Your task to perform on an android device: add a label to a message in the gmail app Image 0: 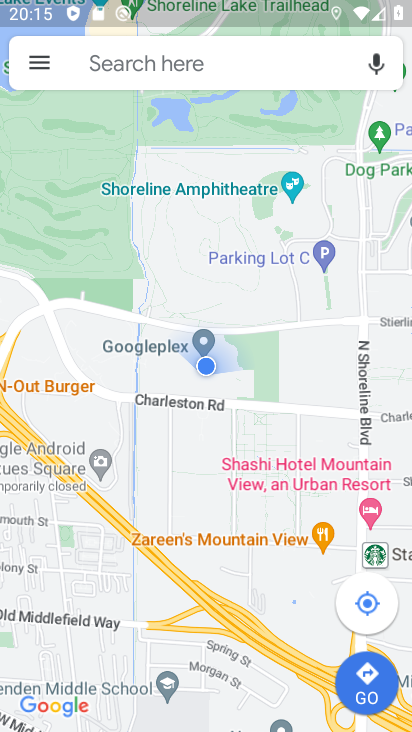
Step 0: press home button
Your task to perform on an android device: add a label to a message in the gmail app Image 1: 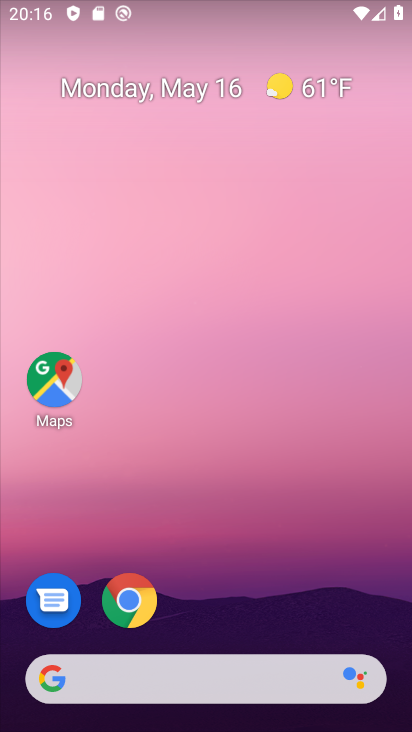
Step 1: drag from (187, 651) to (298, 104)
Your task to perform on an android device: add a label to a message in the gmail app Image 2: 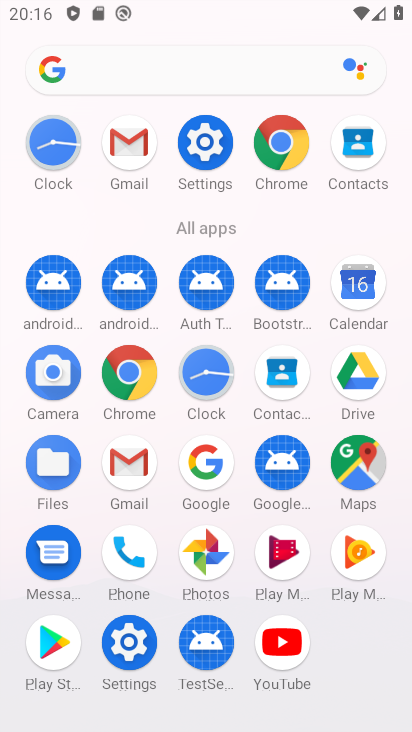
Step 2: click (149, 480)
Your task to perform on an android device: add a label to a message in the gmail app Image 3: 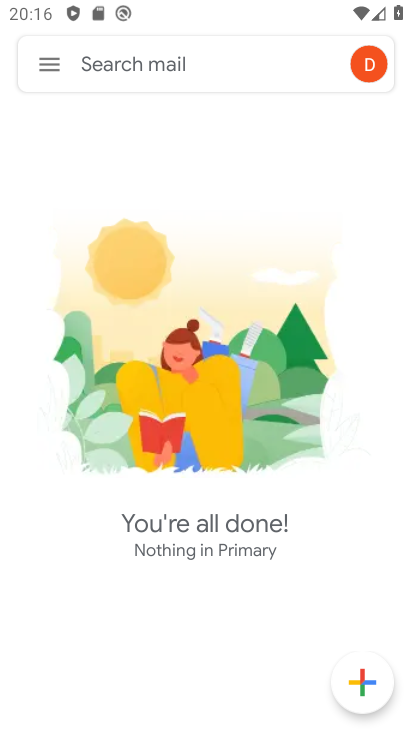
Step 3: click (63, 58)
Your task to perform on an android device: add a label to a message in the gmail app Image 4: 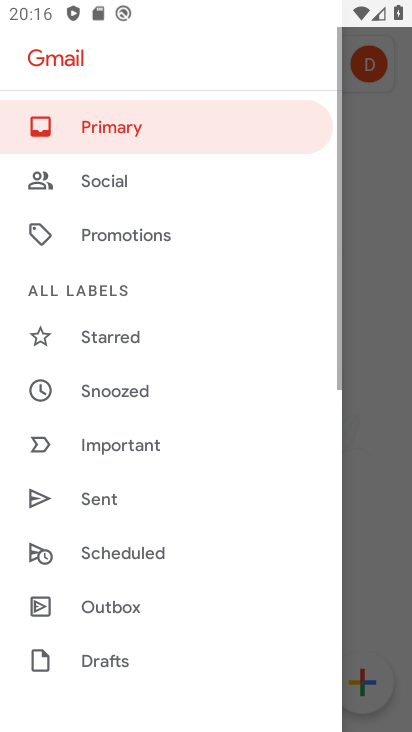
Step 4: drag from (131, 617) to (195, 187)
Your task to perform on an android device: add a label to a message in the gmail app Image 5: 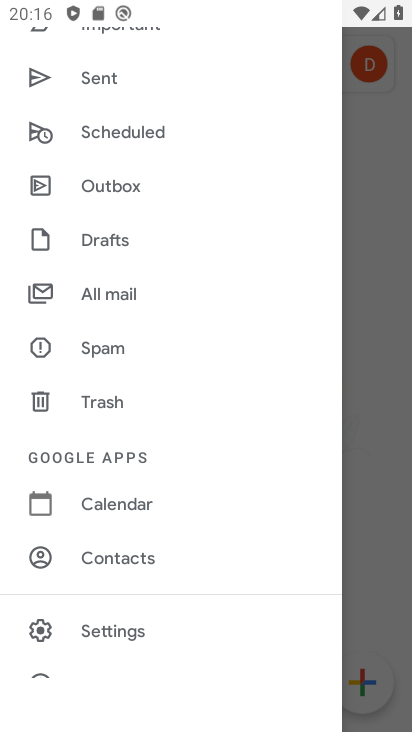
Step 5: click (165, 286)
Your task to perform on an android device: add a label to a message in the gmail app Image 6: 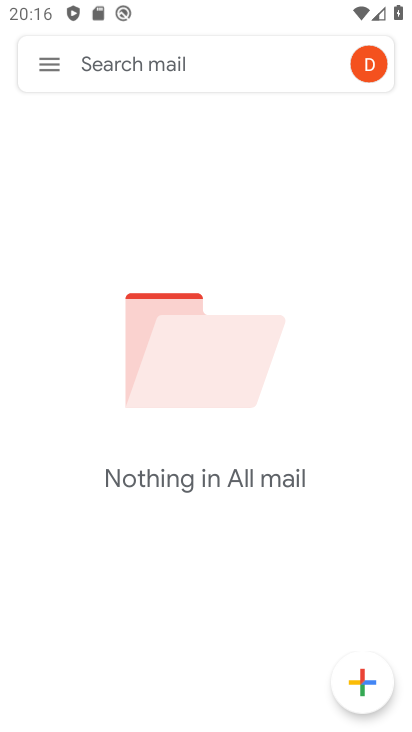
Step 6: task complete